Your task to perform on an android device: search for starred emails in the gmail app Image 0: 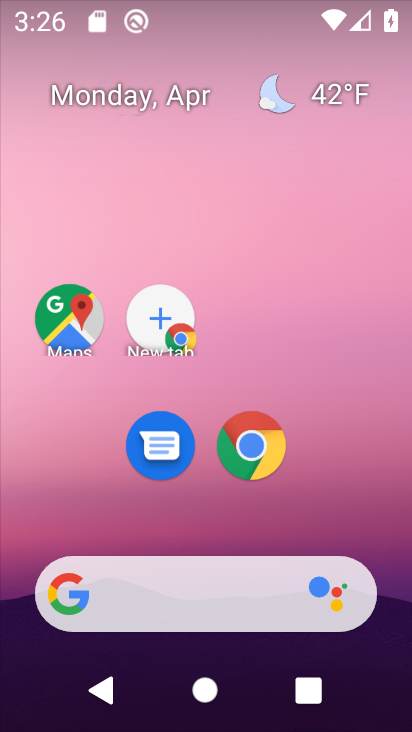
Step 0: drag from (224, 523) to (200, 31)
Your task to perform on an android device: search for starred emails in the gmail app Image 1: 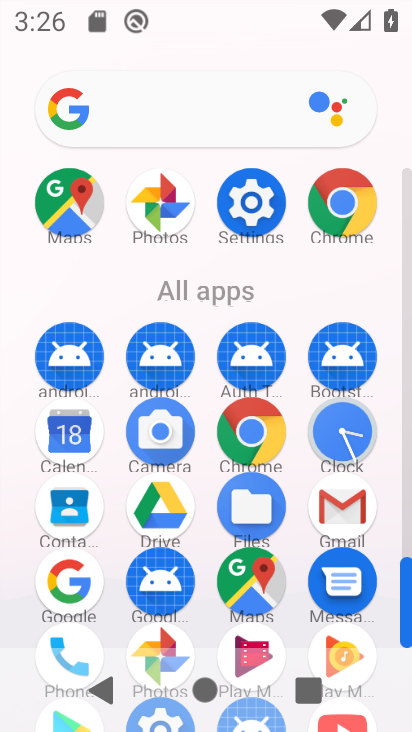
Step 1: click (337, 498)
Your task to perform on an android device: search for starred emails in the gmail app Image 2: 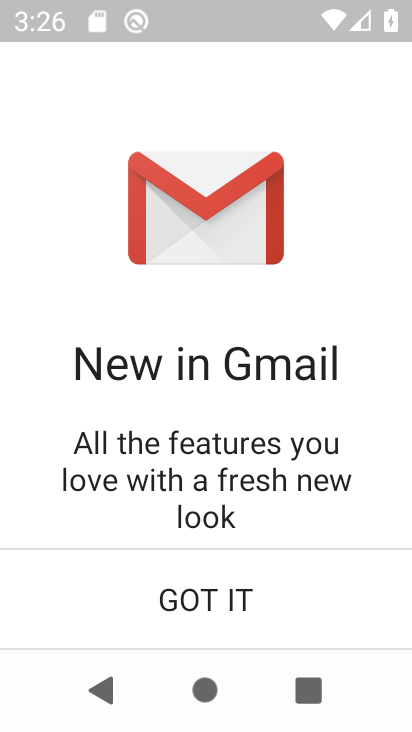
Step 2: click (219, 611)
Your task to perform on an android device: search for starred emails in the gmail app Image 3: 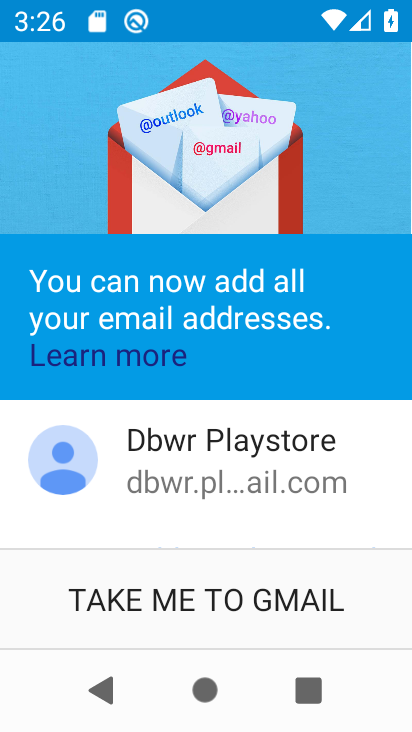
Step 3: click (200, 620)
Your task to perform on an android device: search for starred emails in the gmail app Image 4: 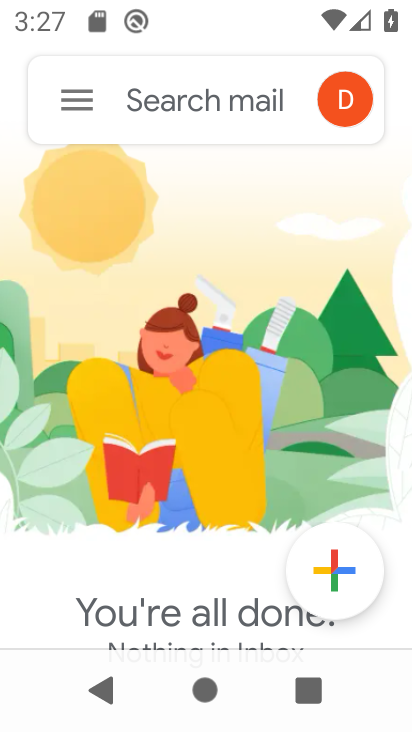
Step 4: click (69, 93)
Your task to perform on an android device: search for starred emails in the gmail app Image 5: 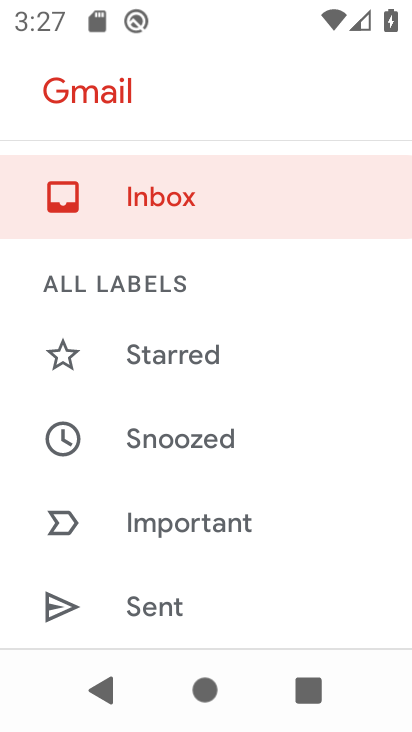
Step 5: click (108, 357)
Your task to perform on an android device: search for starred emails in the gmail app Image 6: 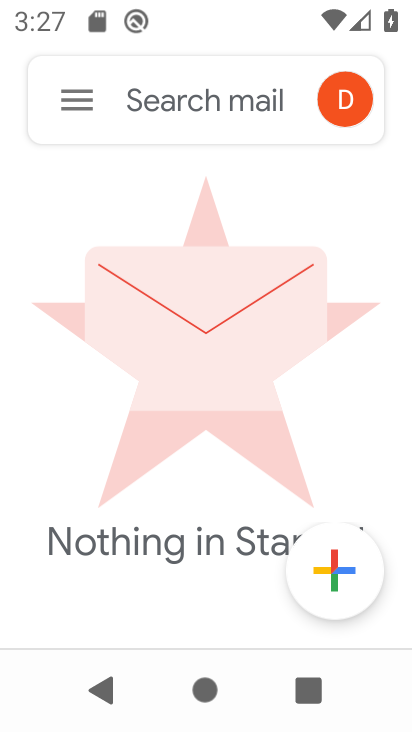
Step 6: task complete